Your task to perform on an android device: install app "Duolingo: language lessons" Image 0: 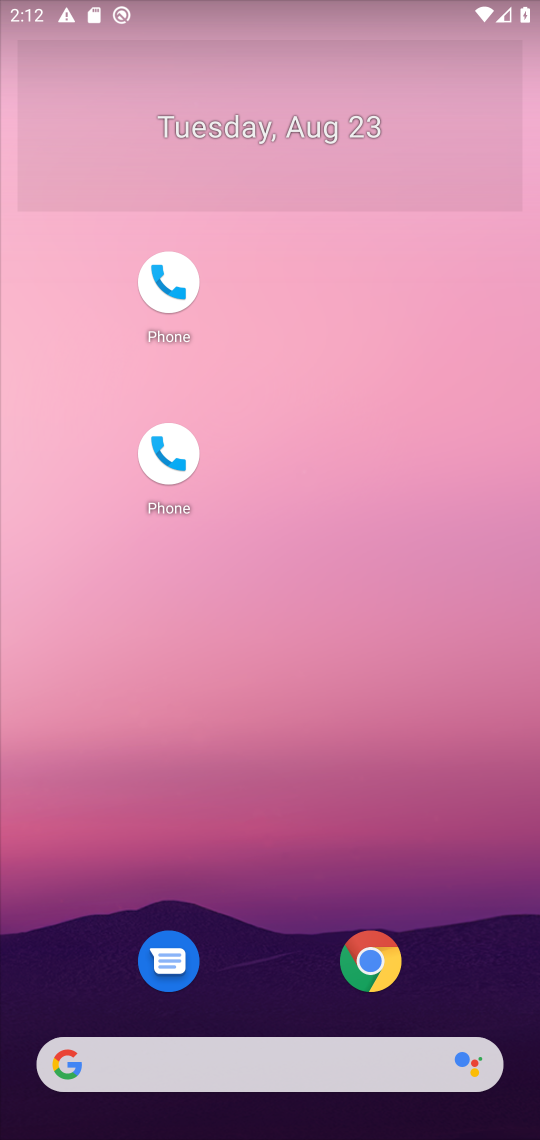
Step 0: click (494, 481)
Your task to perform on an android device: install app "Duolingo: language lessons" Image 1: 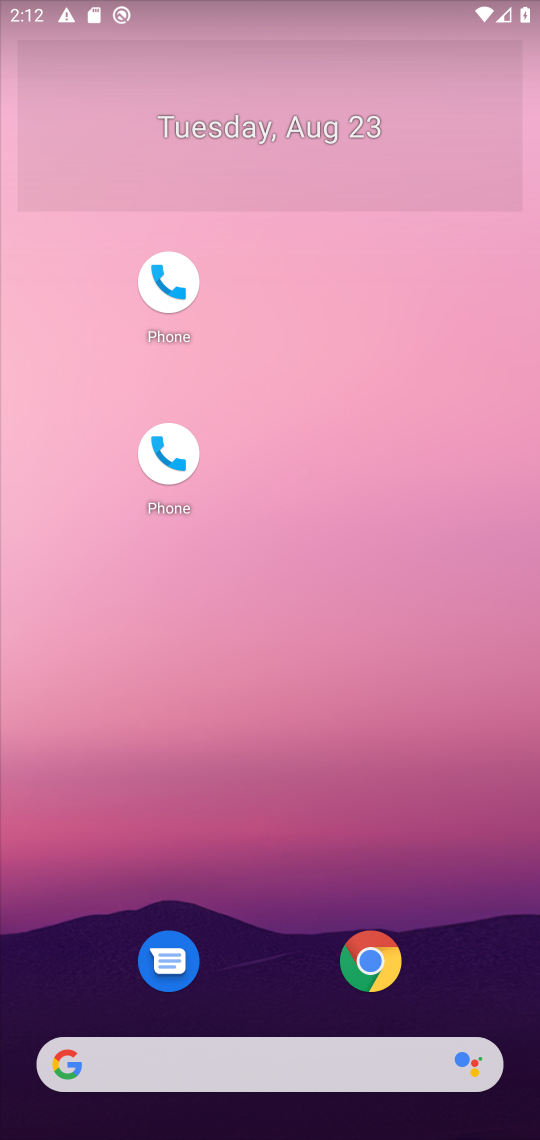
Step 1: task complete